Your task to perform on an android device: open device folders in google photos Image 0: 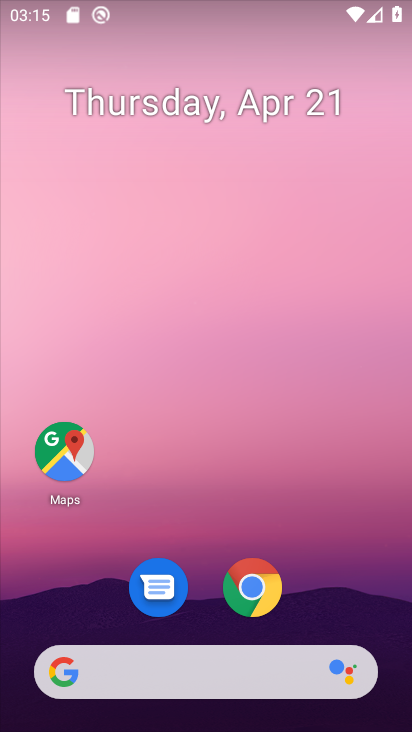
Step 0: drag from (349, 584) to (346, 123)
Your task to perform on an android device: open device folders in google photos Image 1: 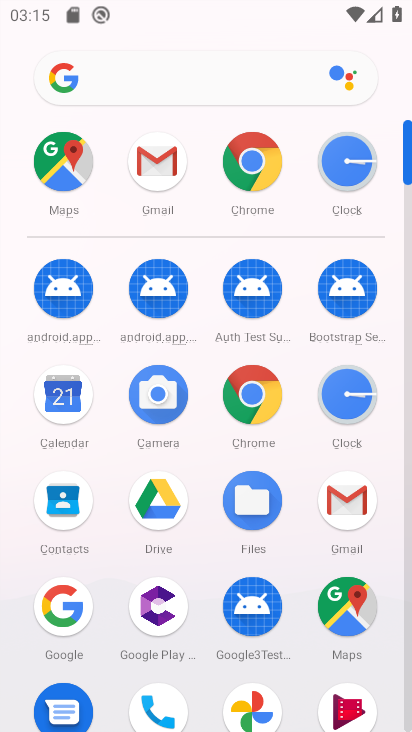
Step 1: drag from (204, 679) to (206, 442)
Your task to perform on an android device: open device folders in google photos Image 2: 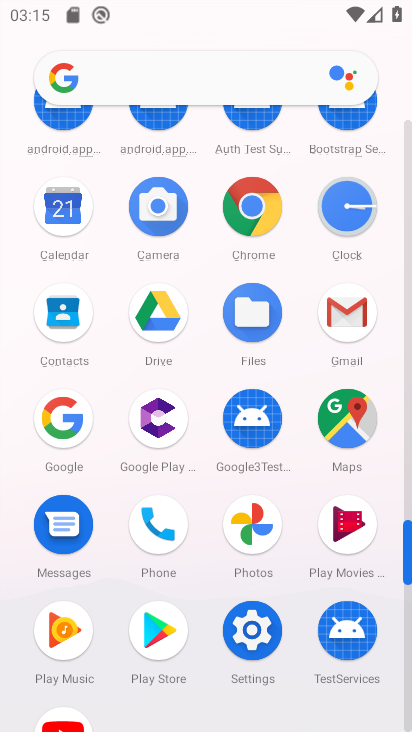
Step 2: click (244, 536)
Your task to perform on an android device: open device folders in google photos Image 3: 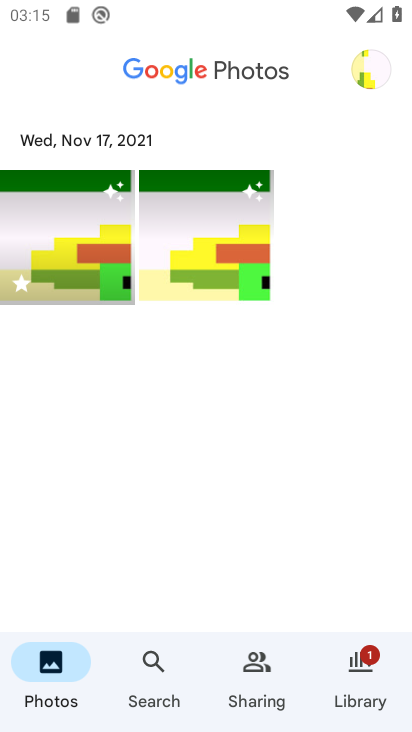
Step 3: click (349, 660)
Your task to perform on an android device: open device folders in google photos Image 4: 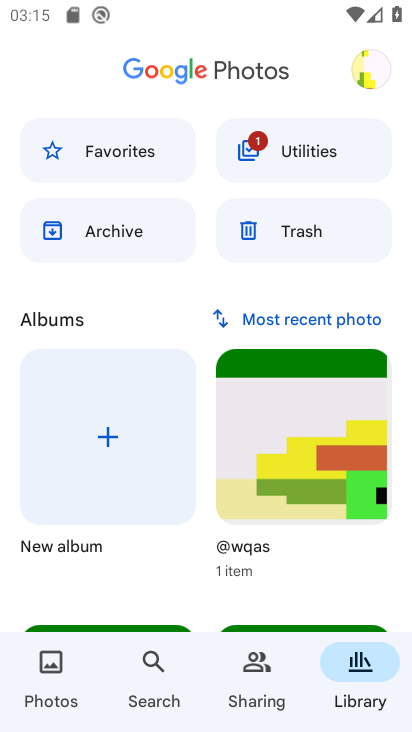
Step 4: task complete